Your task to perform on an android device: open app "Messages" (install if not already installed) and go to login screen Image 0: 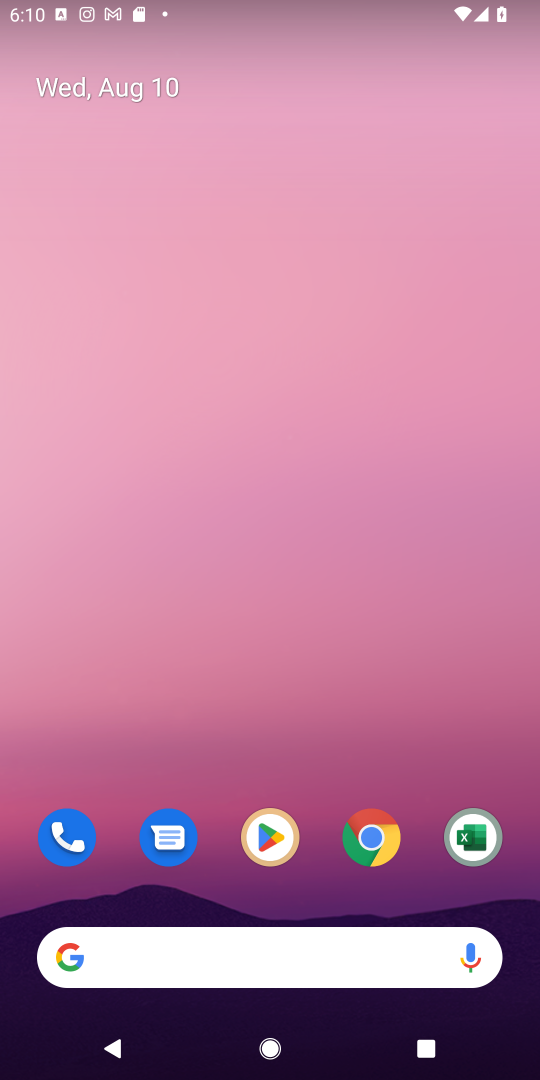
Step 0: press home button
Your task to perform on an android device: open app "Messages" (install if not already installed) and go to login screen Image 1: 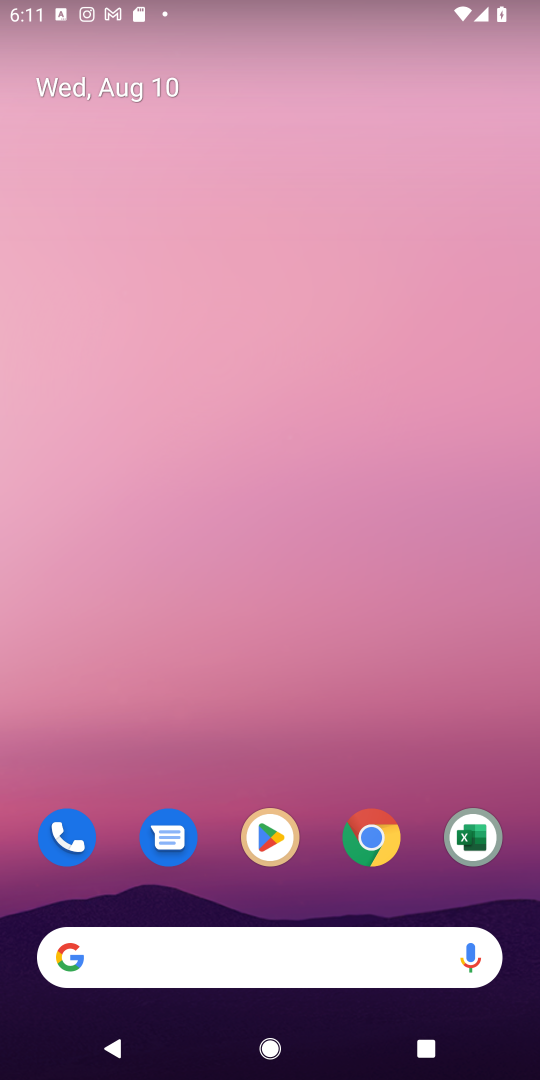
Step 1: click (271, 826)
Your task to perform on an android device: open app "Messages" (install if not already installed) and go to login screen Image 2: 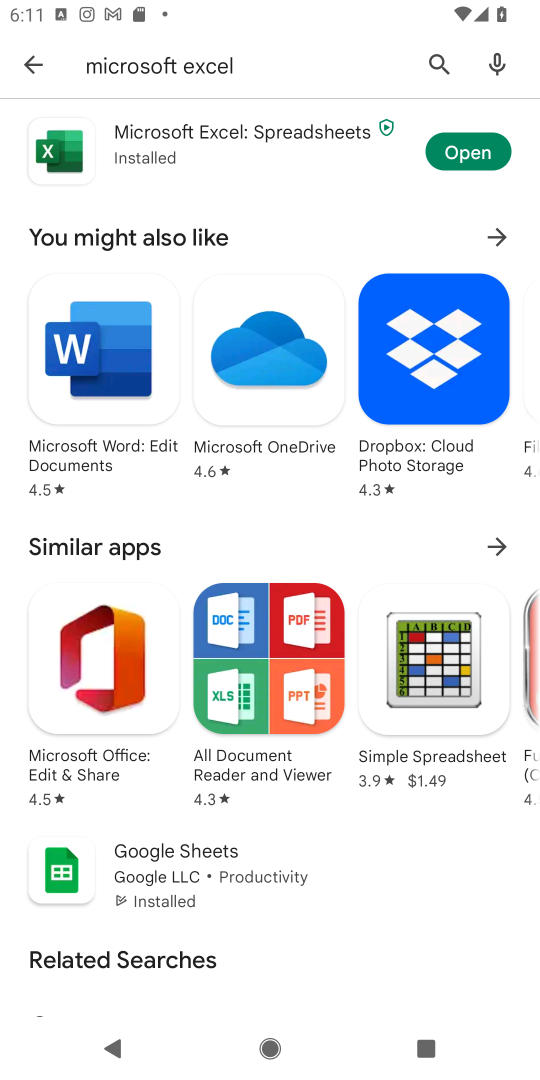
Step 2: click (431, 52)
Your task to perform on an android device: open app "Messages" (install if not already installed) and go to login screen Image 3: 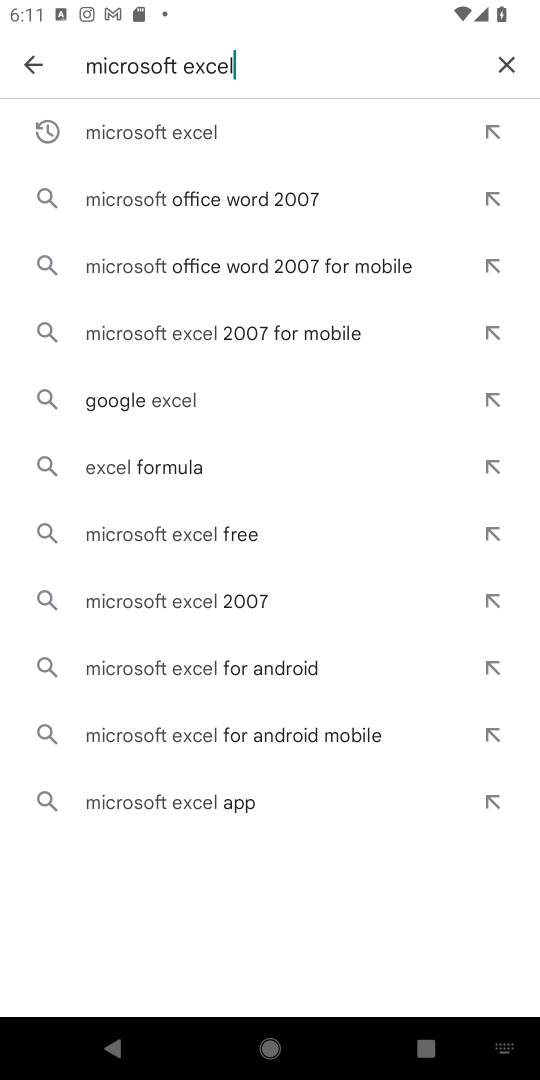
Step 3: click (504, 60)
Your task to perform on an android device: open app "Messages" (install if not already installed) and go to login screen Image 4: 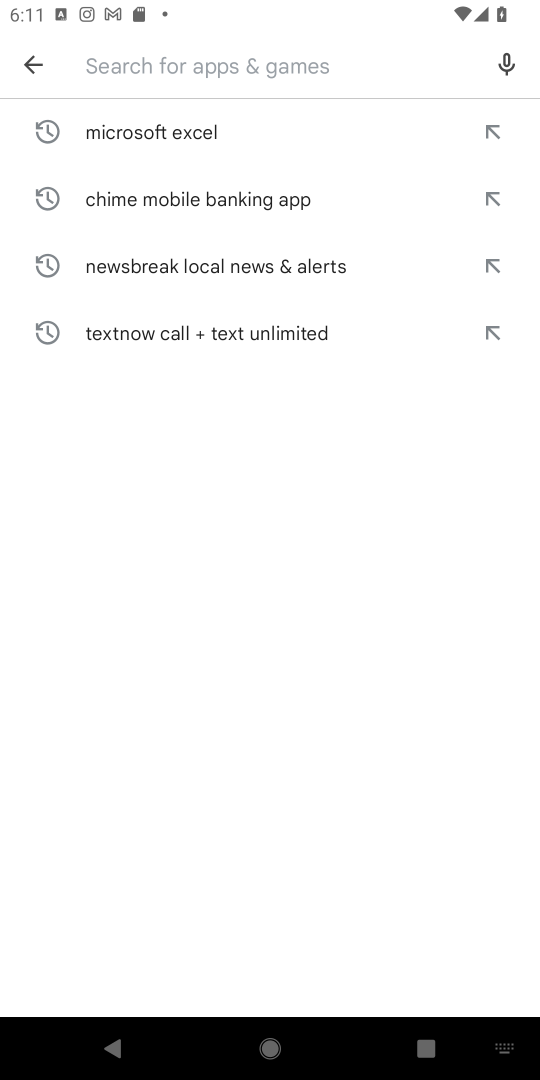
Step 4: type "Messages"
Your task to perform on an android device: open app "Messages" (install if not already installed) and go to login screen Image 5: 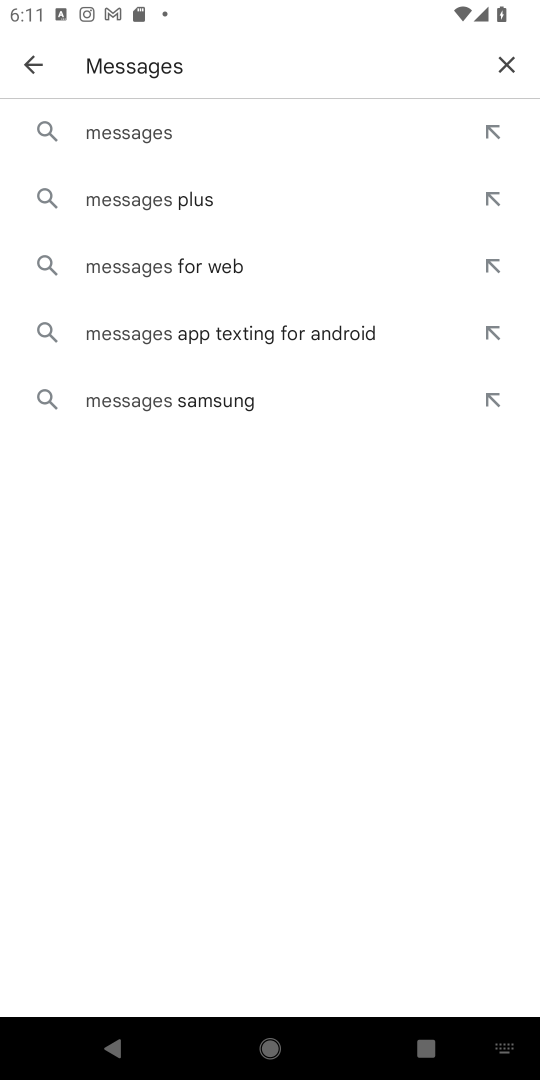
Step 5: click (153, 130)
Your task to perform on an android device: open app "Messages" (install if not already installed) and go to login screen Image 6: 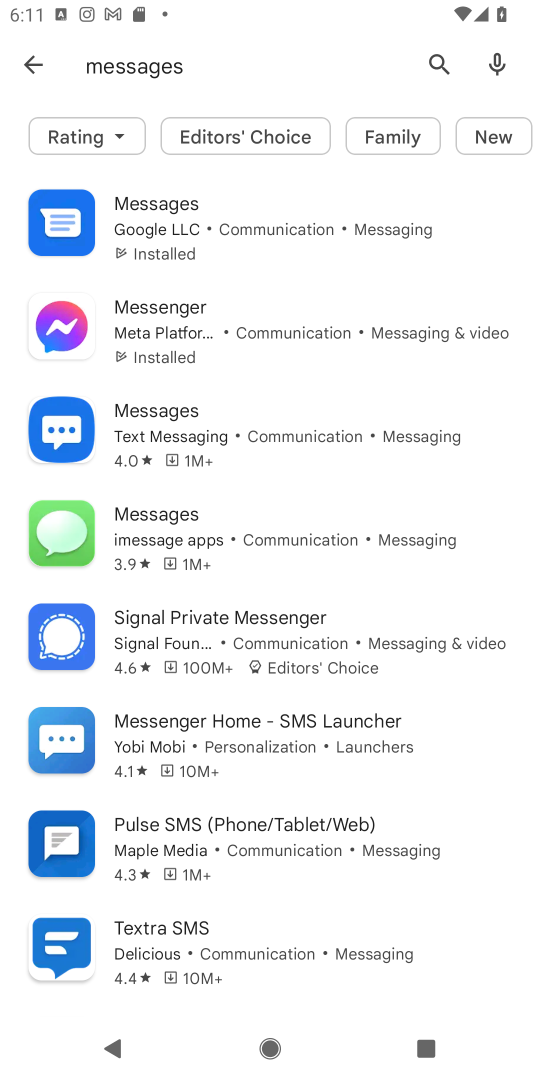
Step 6: click (159, 226)
Your task to perform on an android device: open app "Messages" (install if not already installed) and go to login screen Image 7: 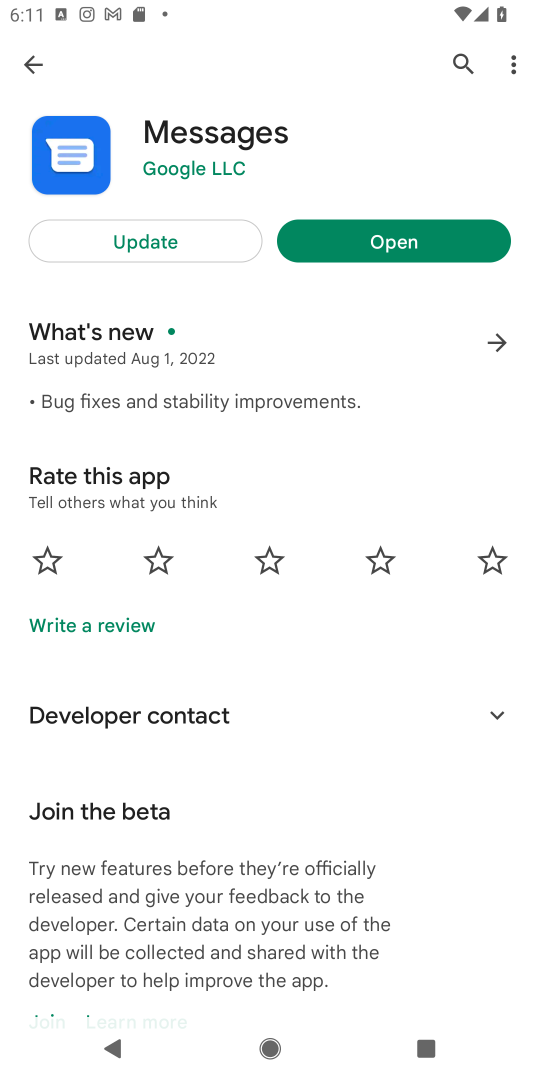
Step 7: click (349, 225)
Your task to perform on an android device: open app "Messages" (install if not already installed) and go to login screen Image 8: 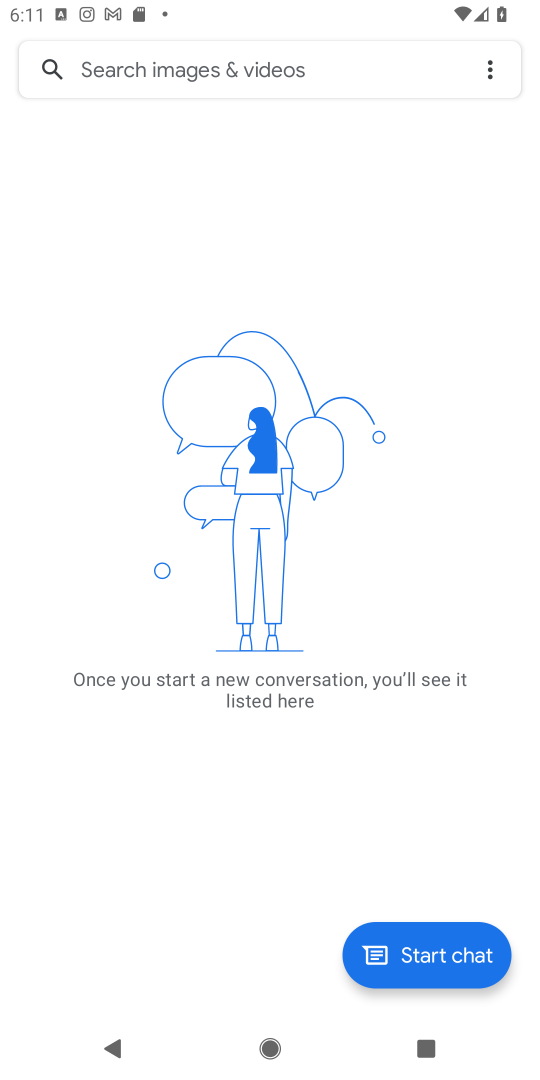
Step 8: task complete